Your task to perform on an android device: Open sound settings Image 0: 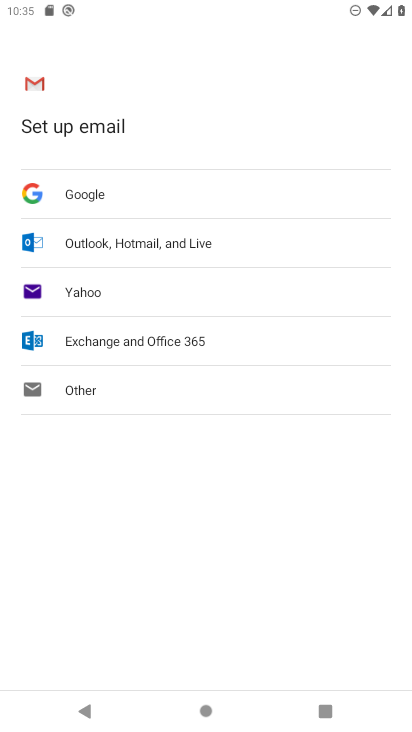
Step 0: press home button
Your task to perform on an android device: Open sound settings Image 1: 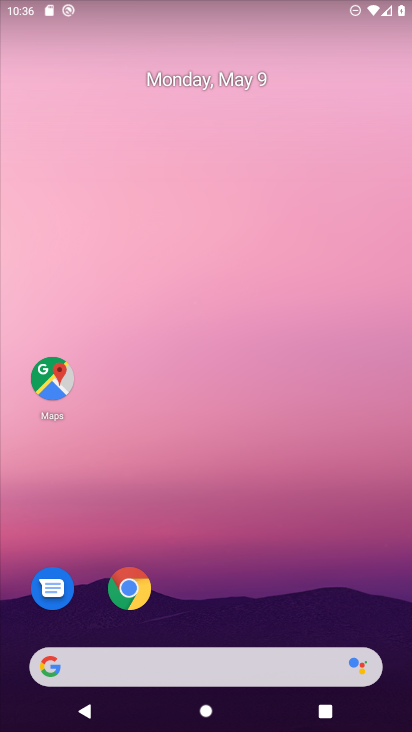
Step 1: drag from (248, 605) to (243, 138)
Your task to perform on an android device: Open sound settings Image 2: 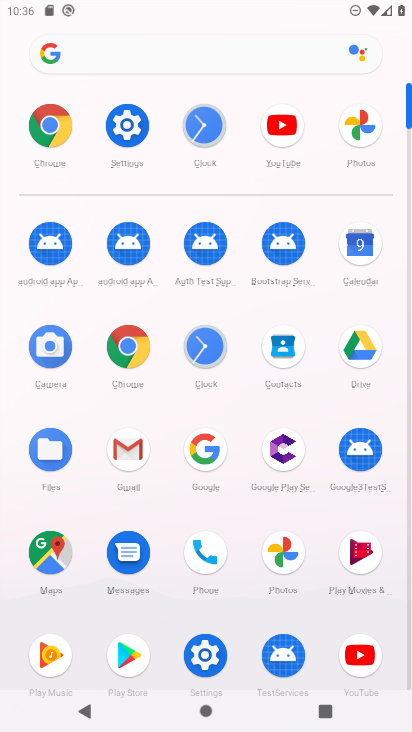
Step 2: click (132, 109)
Your task to perform on an android device: Open sound settings Image 3: 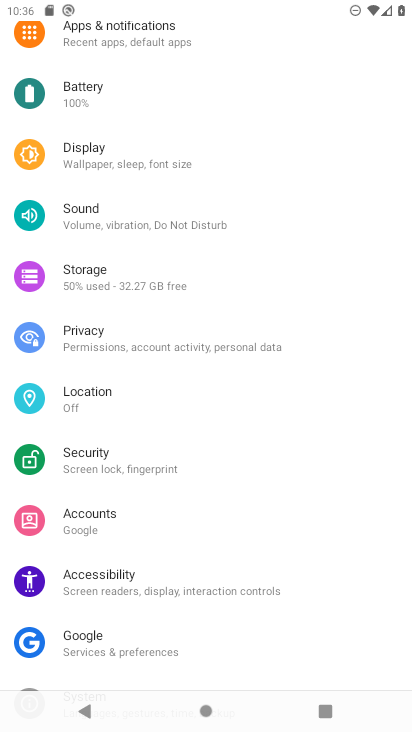
Step 3: click (136, 227)
Your task to perform on an android device: Open sound settings Image 4: 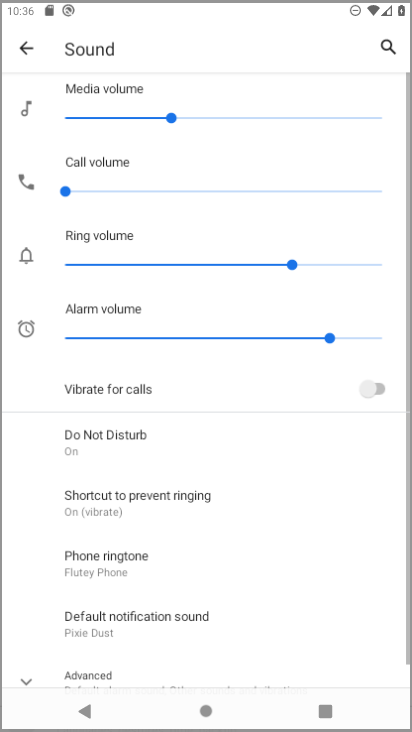
Step 4: task complete